Your task to perform on an android device: Open Chrome and go to settings Image 0: 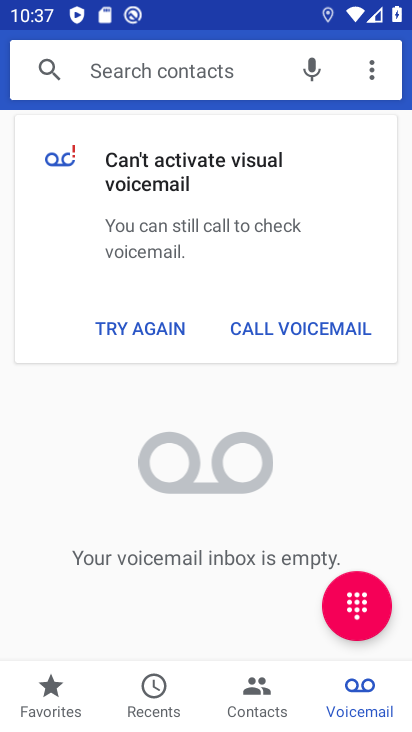
Step 0: press home button
Your task to perform on an android device: Open Chrome and go to settings Image 1: 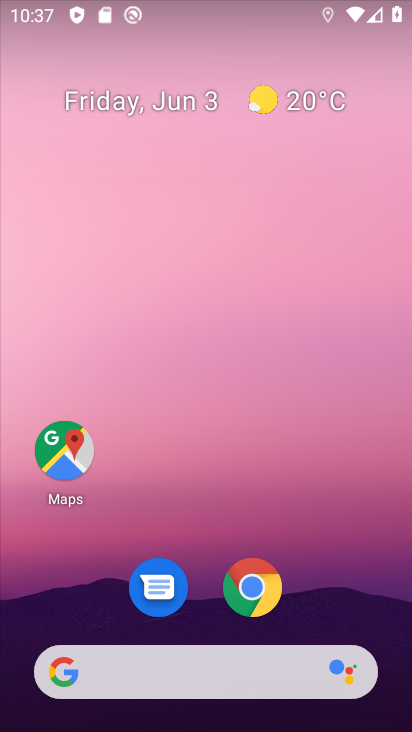
Step 1: click (274, 589)
Your task to perform on an android device: Open Chrome and go to settings Image 2: 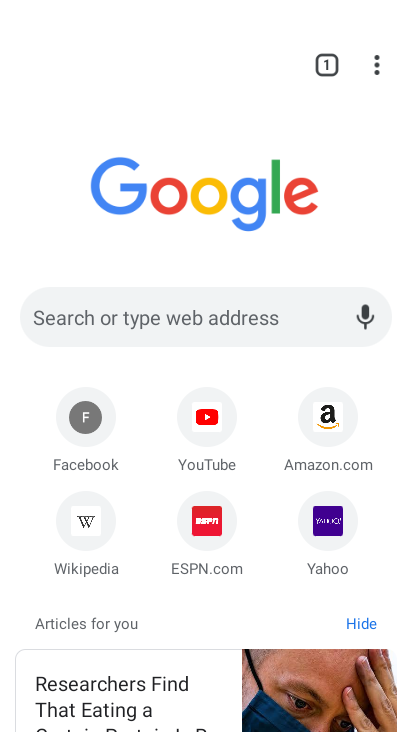
Step 2: click (372, 54)
Your task to perform on an android device: Open Chrome and go to settings Image 3: 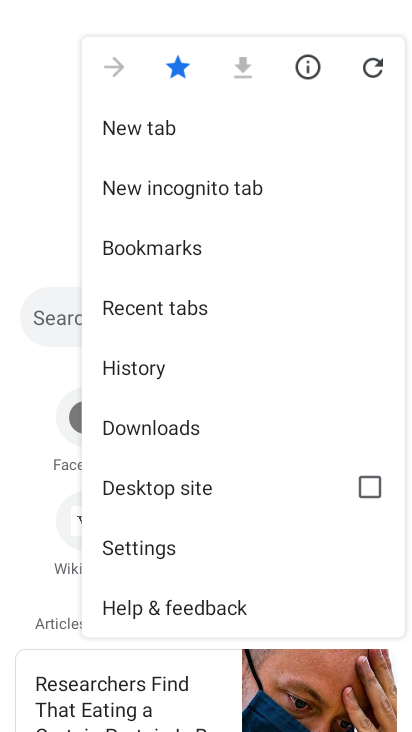
Step 3: click (226, 532)
Your task to perform on an android device: Open Chrome and go to settings Image 4: 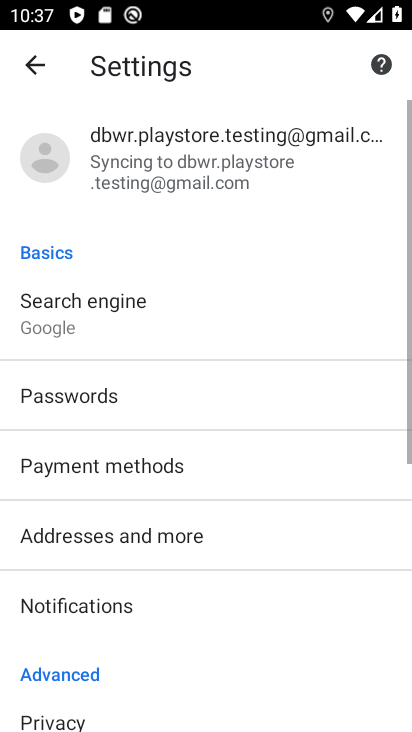
Step 4: task complete